Your task to perform on an android device: Go to privacy settings Image 0: 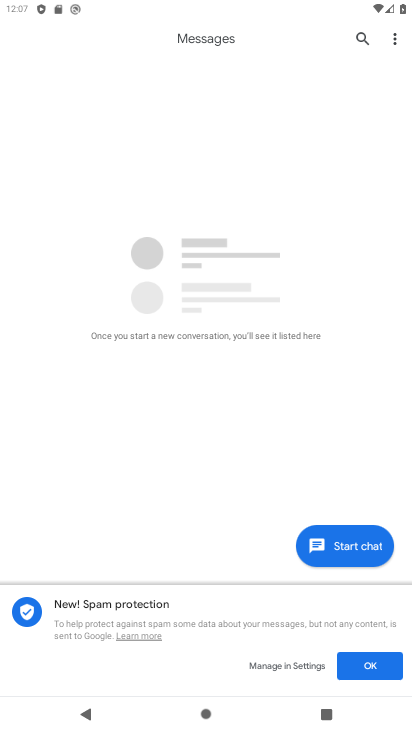
Step 0: press home button
Your task to perform on an android device: Go to privacy settings Image 1: 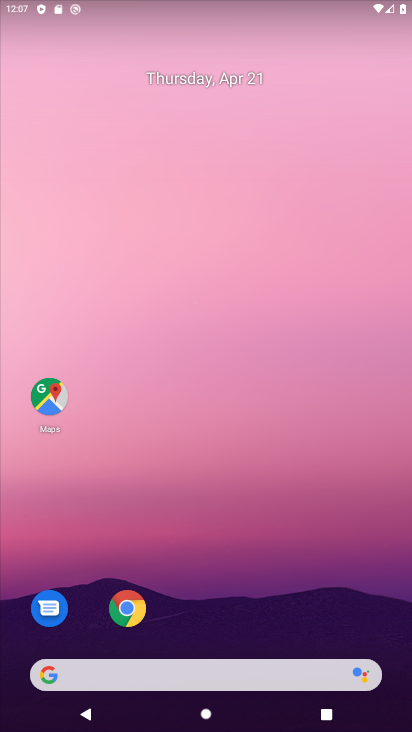
Step 1: drag from (227, 636) to (239, 114)
Your task to perform on an android device: Go to privacy settings Image 2: 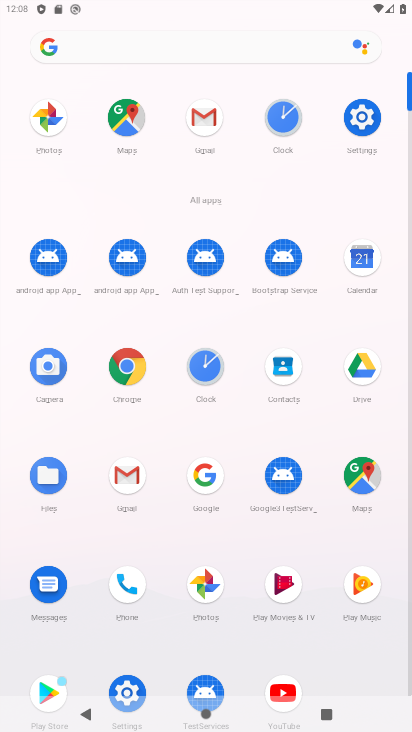
Step 2: drag from (163, 554) to (166, 477)
Your task to perform on an android device: Go to privacy settings Image 3: 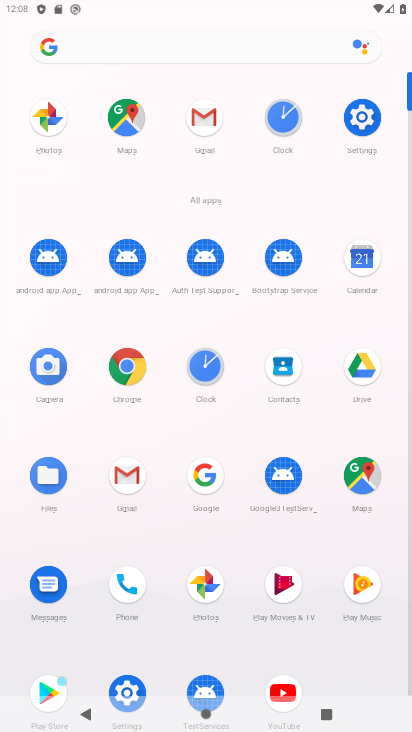
Step 3: click (128, 397)
Your task to perform on an android device: Go to privacy settings Image 4: 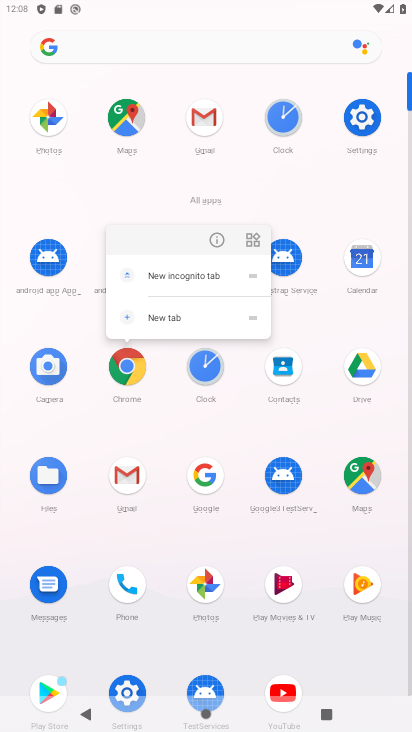
Step 4: click (125, 358)
Your task to perform on an android device: Go to privacy settings Image 5: 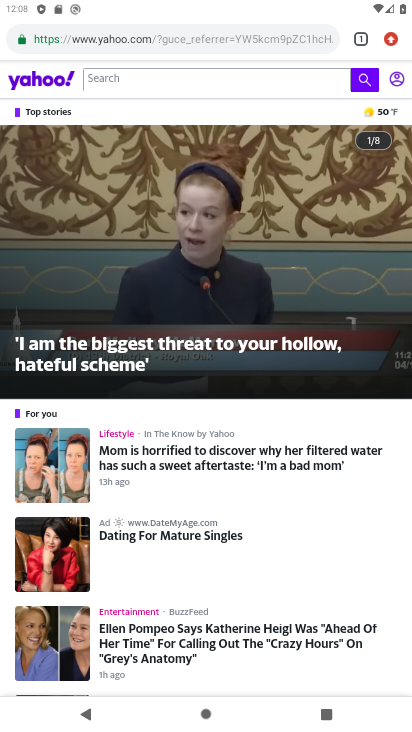
Step 5: click (391, 40)
Your task to perform on an android device: Go to privacy settings Image 6: 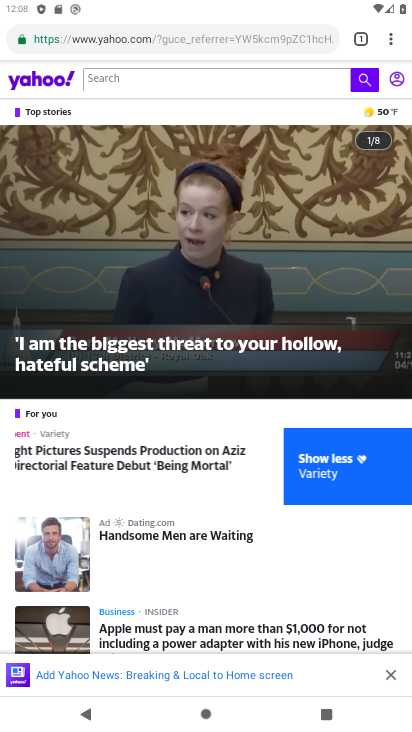
Step 6: drag from (392, 30) to (251, 514)
Your task to perform on an android device: Go to privacy settings Image 7: 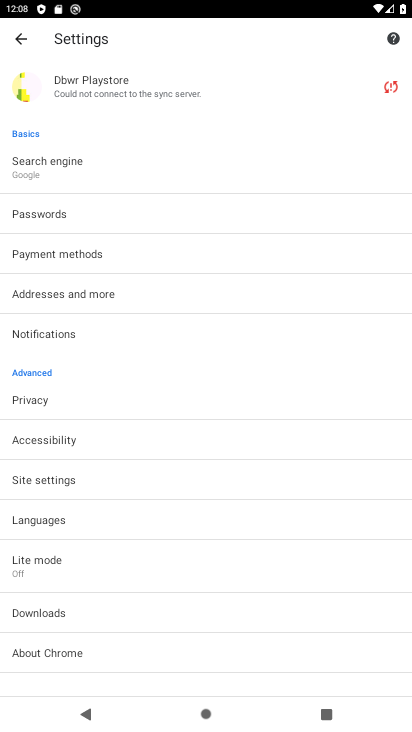
Step 7: click (56, 403)
Your task to perform on an android device: Go to privacy settings Image 8: 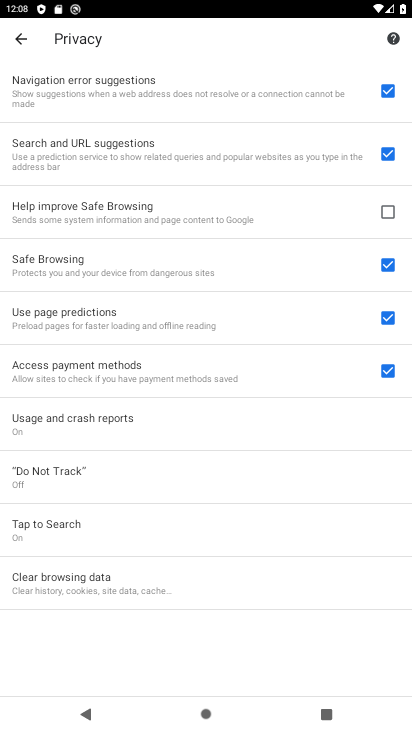
Step 8: task complete